Your task to perform on an android device: see sites visited before in the chrome app Image 0: 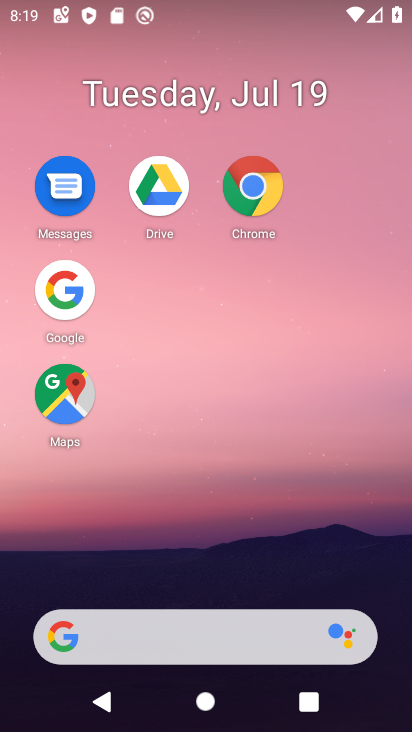
Step 0: click (266, 187)
Your task to perform on an android device: see sites visited before in the chrome app Image 1: 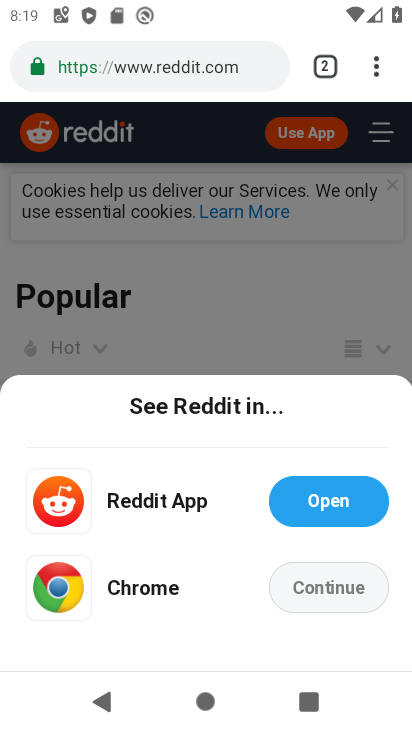
Step 1: click (342, 597)
Your task to perform on an android device: see sites visited before in the chrome app Image 2: 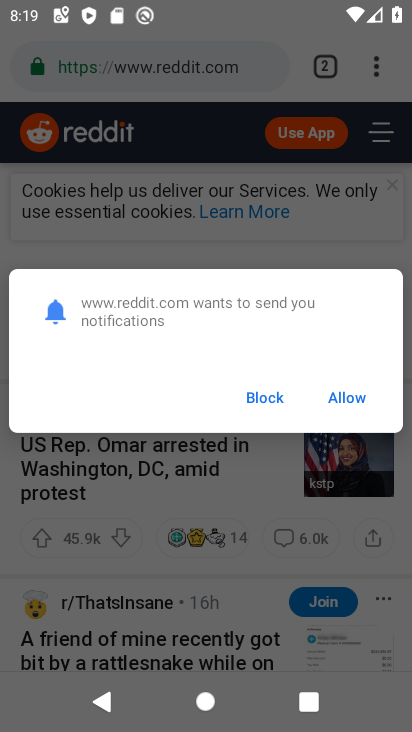
Step 2: click (338, 391)
Your task to perform on an android device: see sites visited before in the chrome app Image 3: 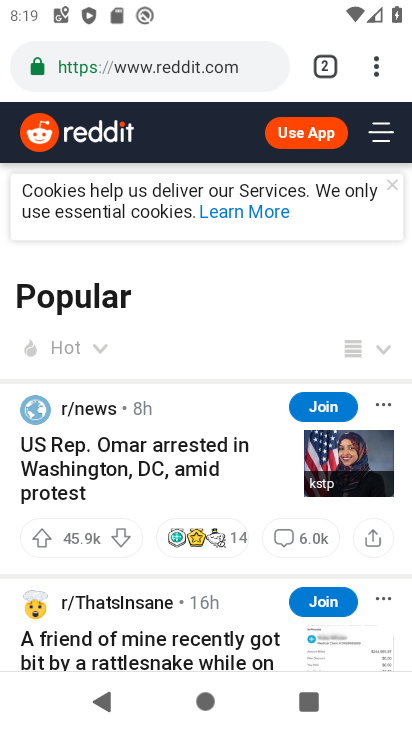
Step 3: click (322, 77)
Your task to perform on an android device: see sites visited before in the chrome app Image 4: 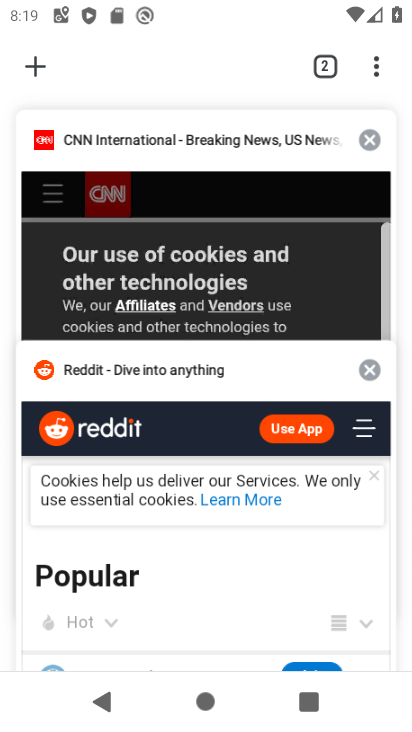
Step 4: task complete